Your task to perform on an android device: all mails in gmail Image 0: 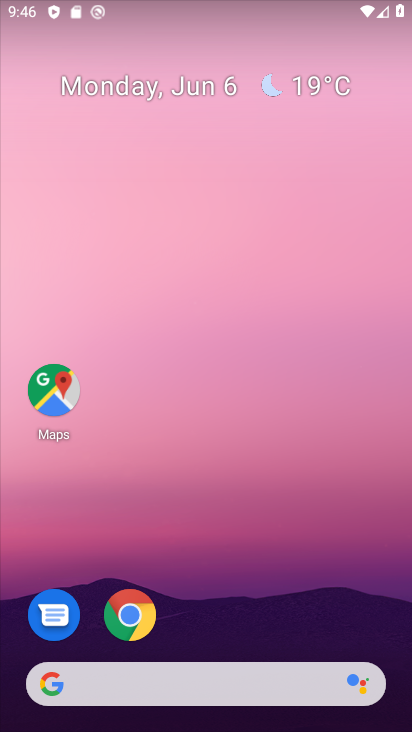
Step 0: task complete